Your task to perform on an android device: add a label to a message in the gmail app Image 0: 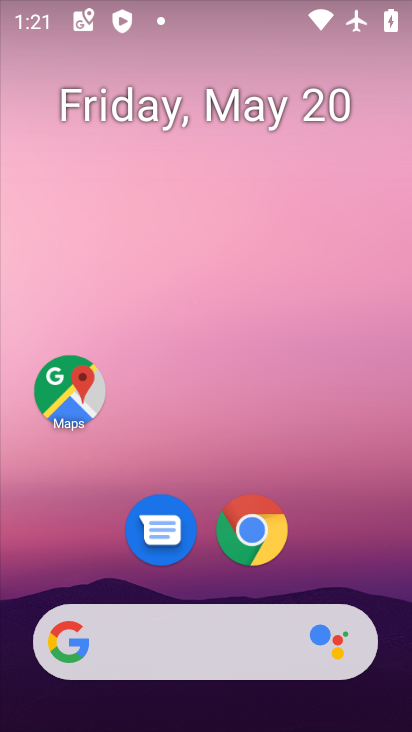
Step 0: drag from (207, 711) to (224, 175)
Your task to perform on an android device: add a label to a message in the gmail app Image 1: 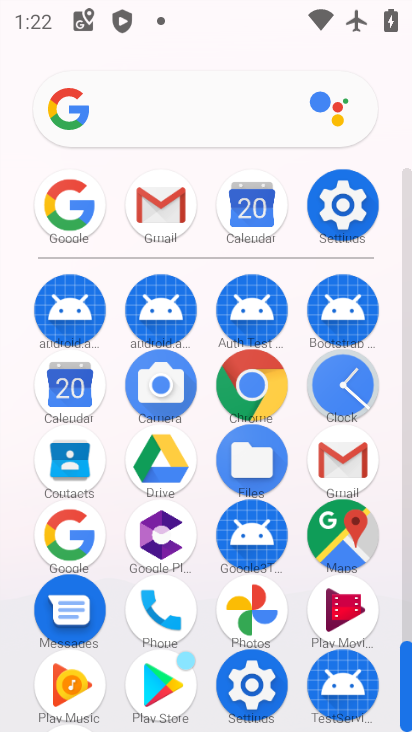
Step 1: click (163, 226)
Your task to perform on an android device: add a label to a message in the gmail app Image 2: 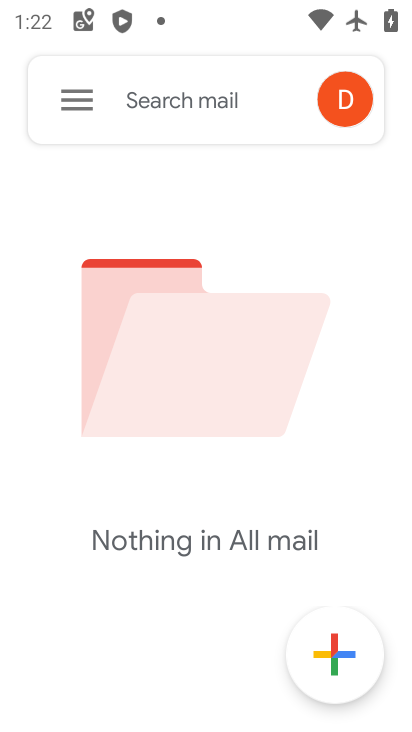
Step 2: task complete